Your task to perform on an android device: turn off location Image 0: 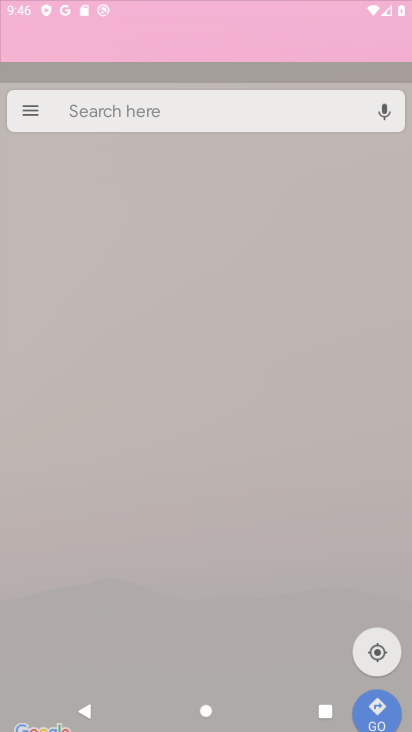
Step 0: click (218, 0)
Your task to perform on an android device: turn off location Image 1: 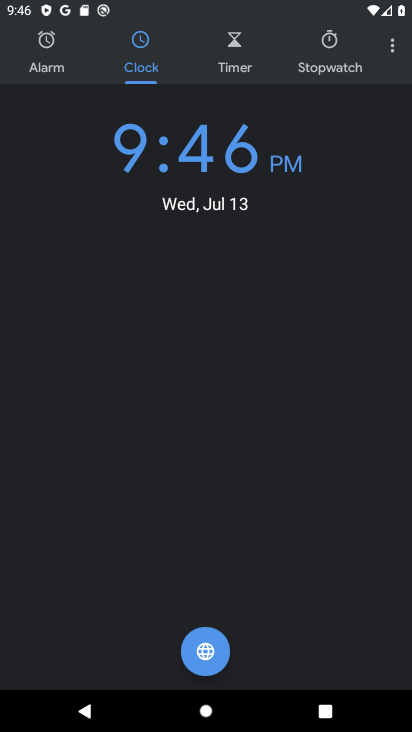
Step 1: press home button
Your task to perform on an android device: turn off location Image 2: 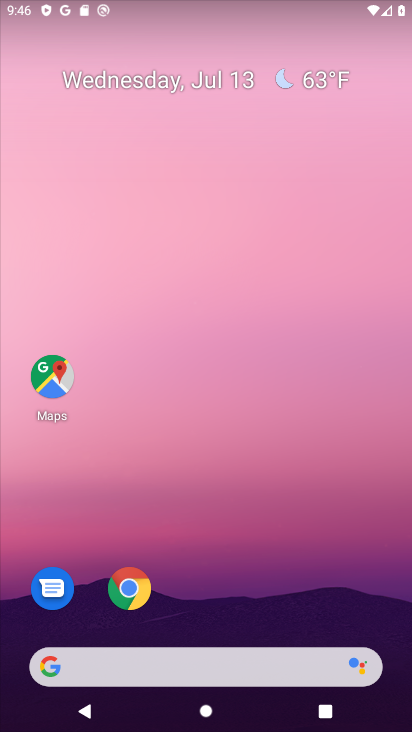
Step 2: drag from (198, 591) to (208, 92)
Your task to perform on an android device: turn off location Image 3: 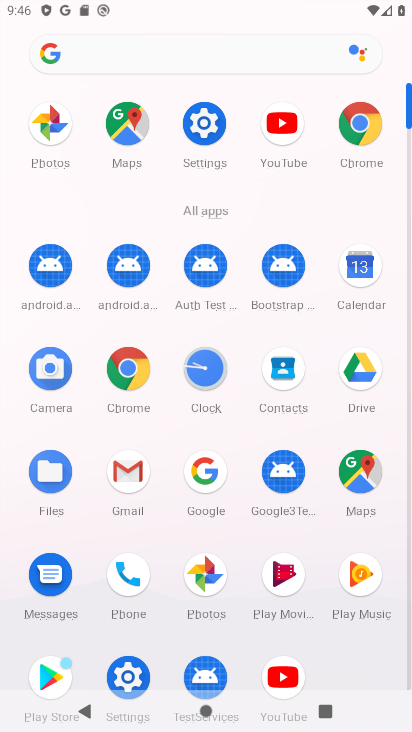
Step 3: click (209, 123)
Your task to perform on an android device: turn off location Image 4: 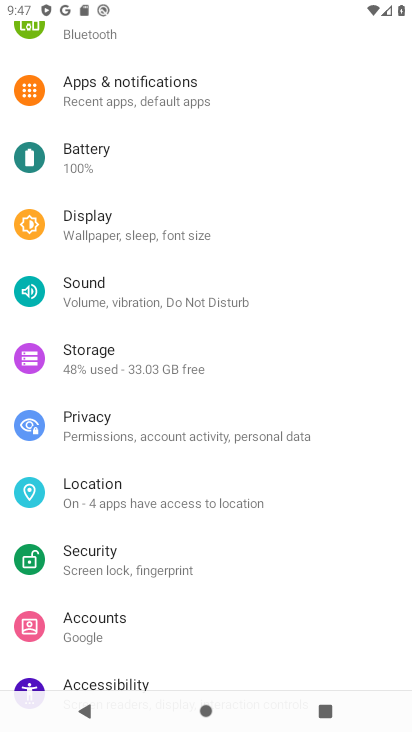
Step 4: click (103, 483)
Your task to perform on an android device: turn off location Image 5: 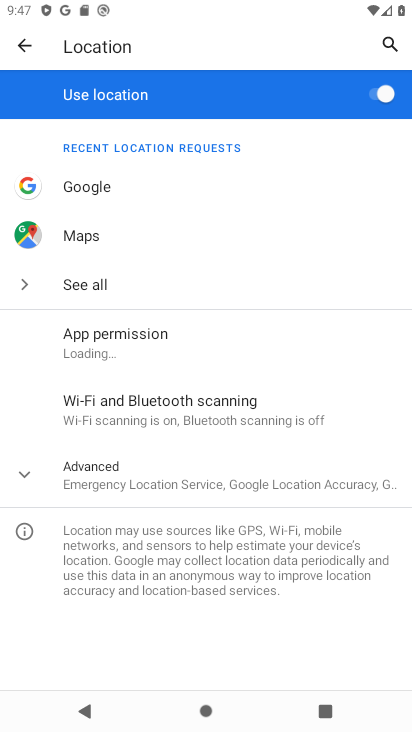
Step 5: click (384, 92)
Your task to perform on an android device: turn off location Image 6: 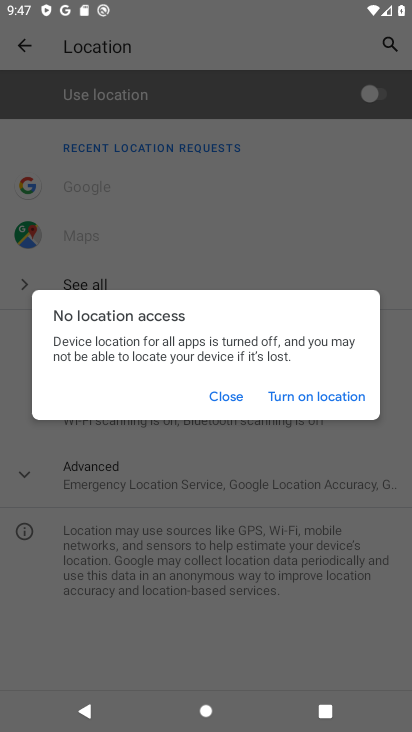
Step 6: task complete